Your task to perform on an android device: turn off sleep mode Image 0: 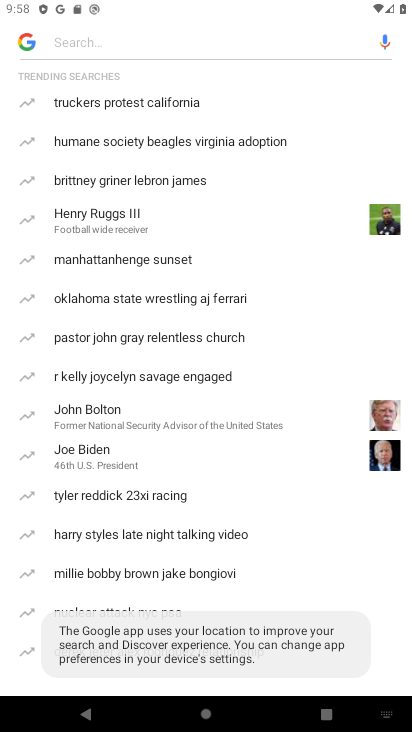
Step 0: press home button
Your task to perform on an android device: turn off sleep mode Image 1: 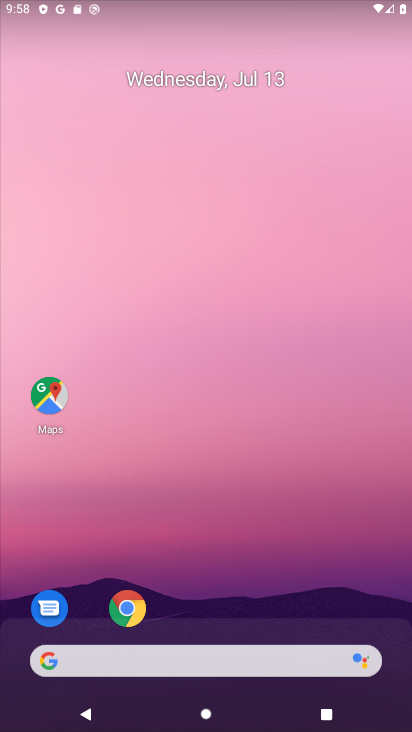
Step 1: drag from (234, 666) to (296, 95)
Your task to perform on an android device: turn off sleep mode Image 2: 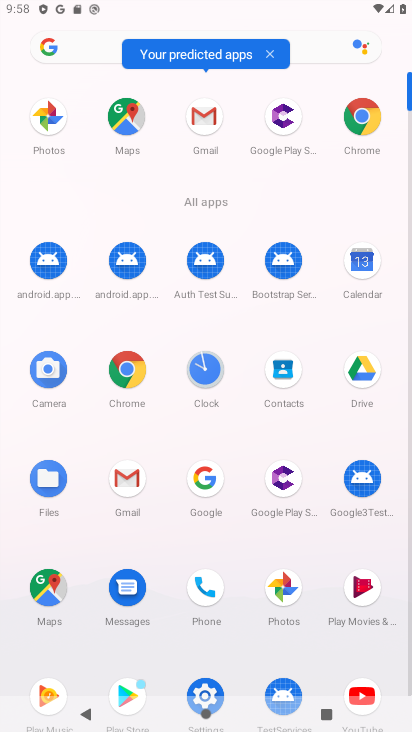
Step 2: click (206, 694)
Your task to perform on an android device: turn off sleep mode Image 3: 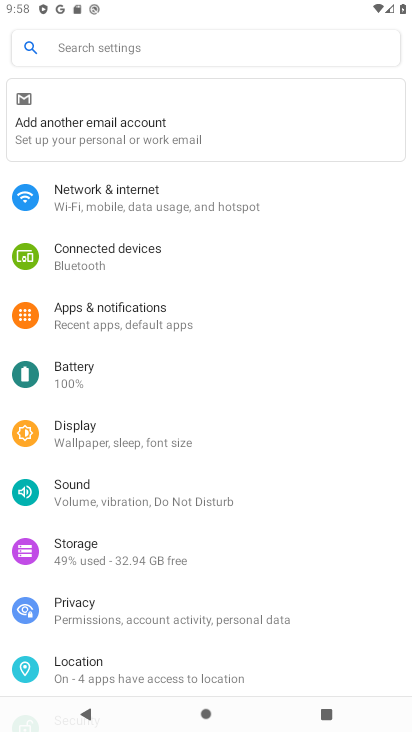
Step 3: click (97, 440)
Your task to perform on an android device: turn off sleep mode Image 4: 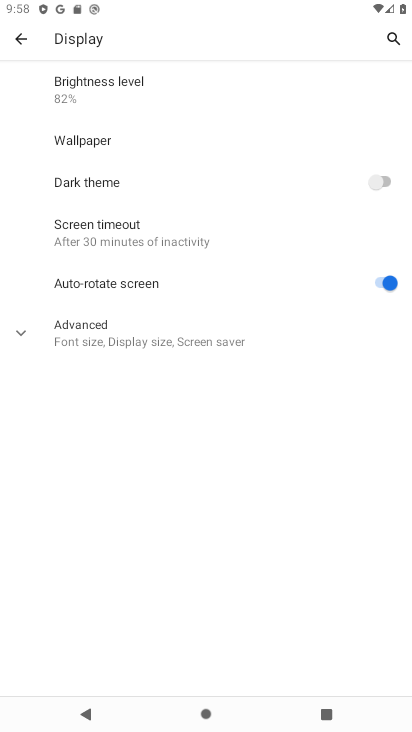
Step 4: click (97, 440)
Your task to perform on an android device: turn off sleep mode Image 5: 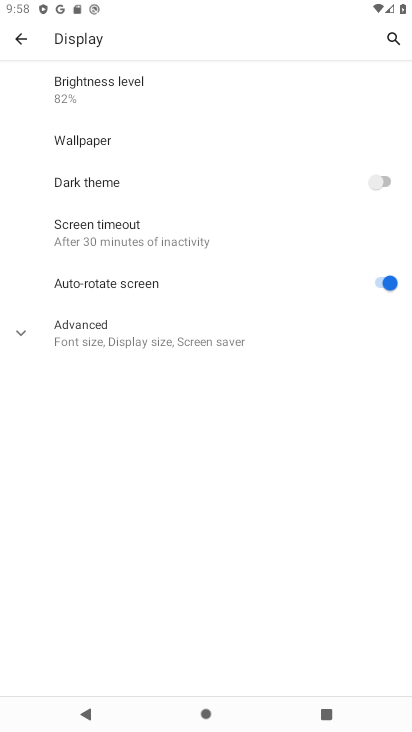
Step 5: click (125, 345)
Your task to perform on an android device: turn off sleep mode Image 6: 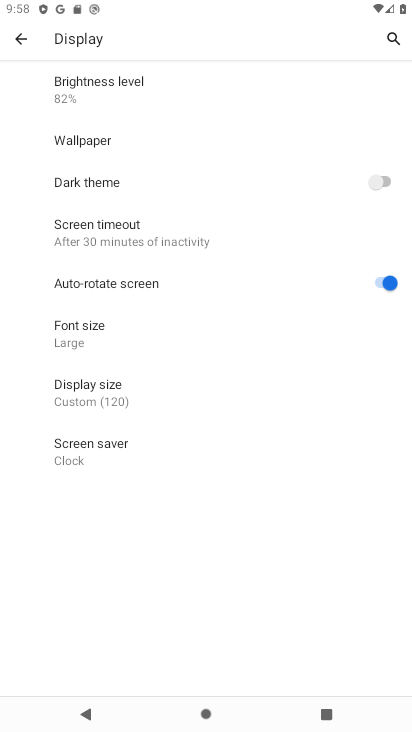
Step 6: click (87, 447)
Your task to perform on an android device: turn off sleep mode Image 7: 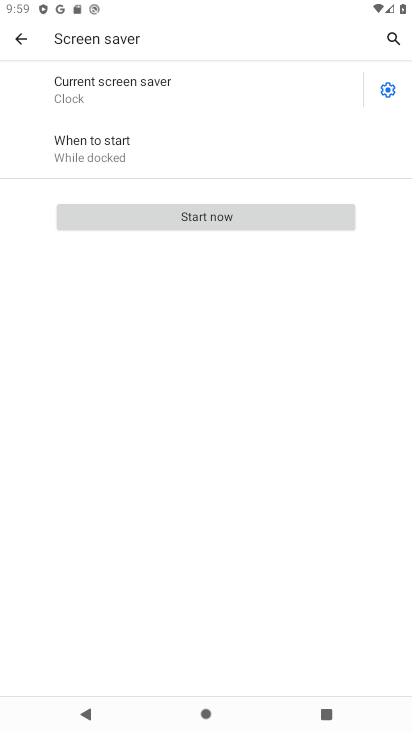
Step 7: click (391, 92)
Your task to perform on an android device: turn off sleep mode Image 8: 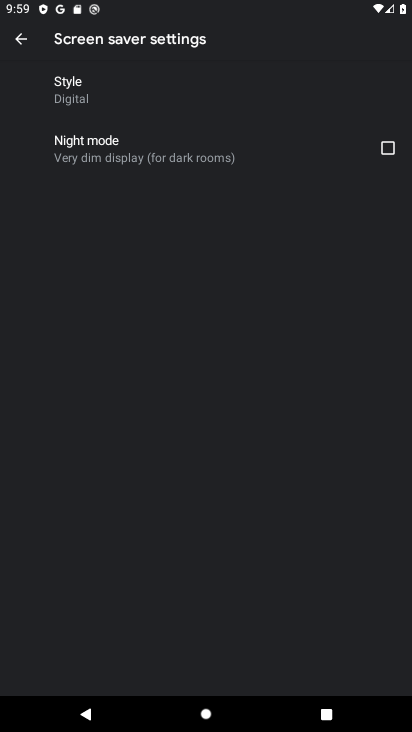
Step 8: press back button
Your task to perform on an android device: turn off sleep mode Image 9: 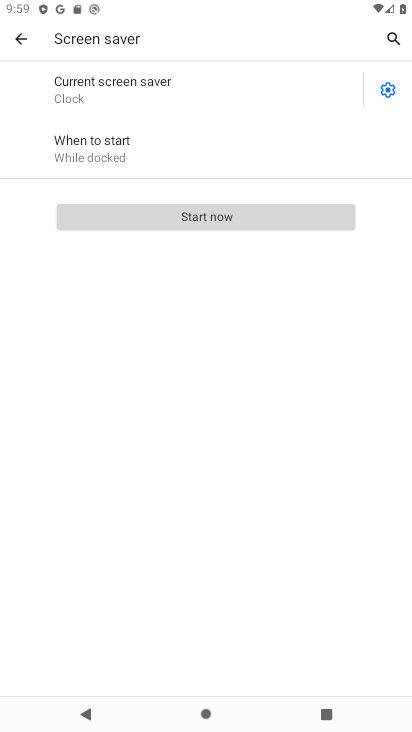
Step 9: press back button
Your task to perform on an android device: turn off sleep mode Image 10: 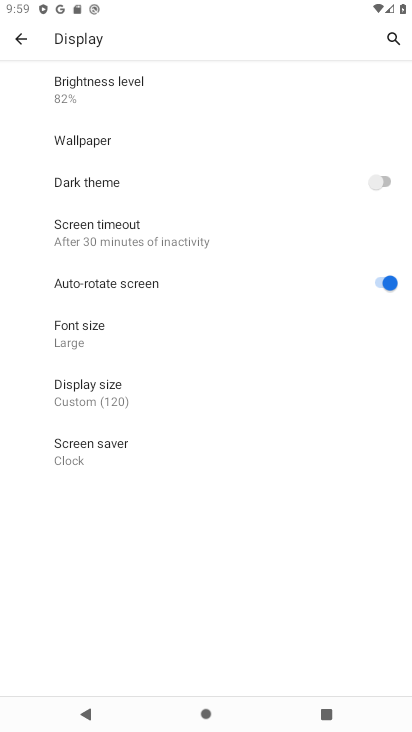
Step 10: click (136, 238)
Your task to perform on an android device: turn off sleep mode Image 11: 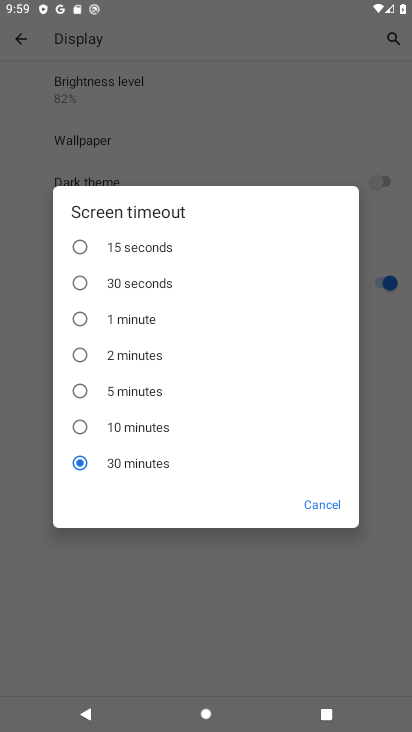
Step 11: click (313, 509)
Your task to perform on an android device: turn off sleep mode Image 12: 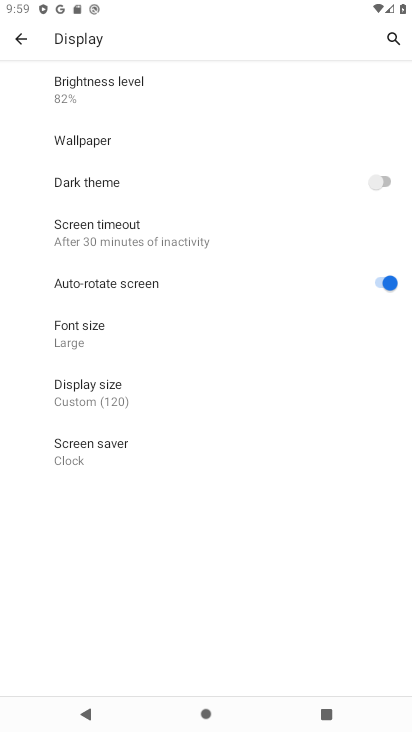
Step 12: task complete